Your task to perform on an android device: Open Youtube and go to "Your channel" Image 0: 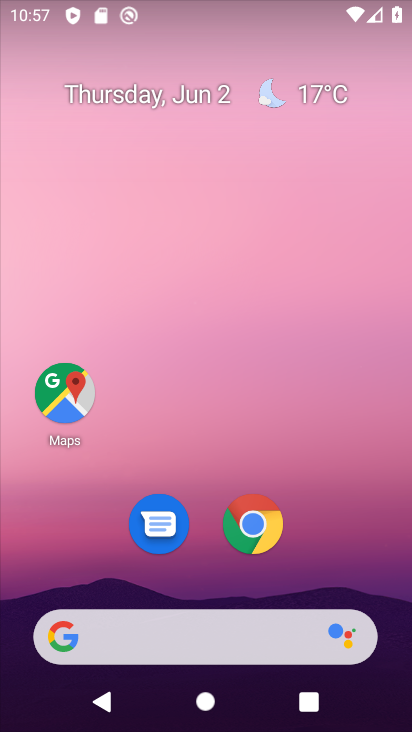
Step 0: drag from (210, 460) to (226, 0)
Your task to perform on an android device: Open Youtube and go to "Your channel" Image 1: 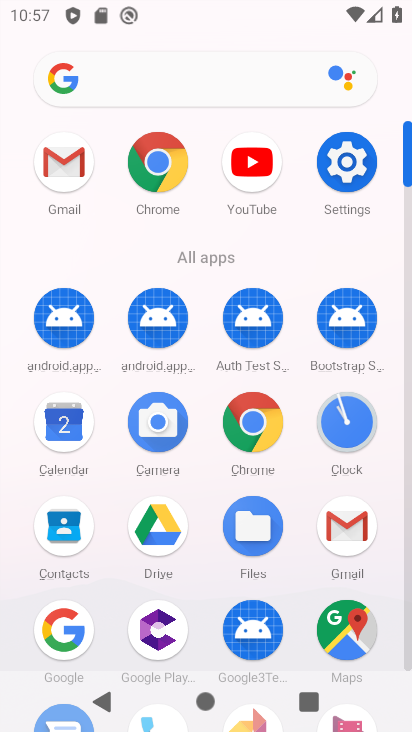
Step 1: click (248, 174)
Your task to perform on an android device: Open Youtube and go to "Your channel" Image 2: 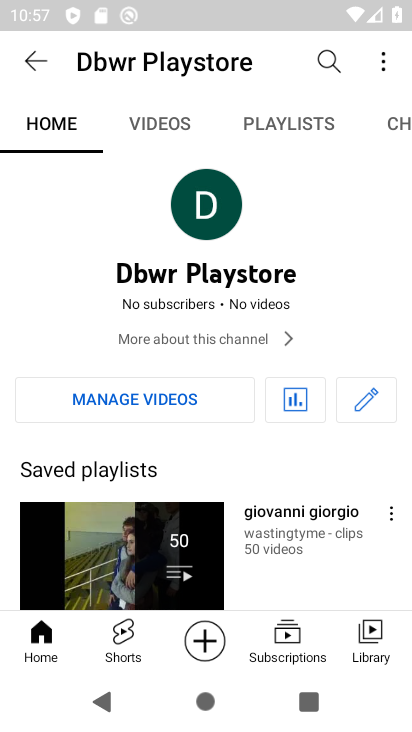
Step 2: task complete